Your task to perform on an android device: turn smart compose on in the gmail app Image 0: 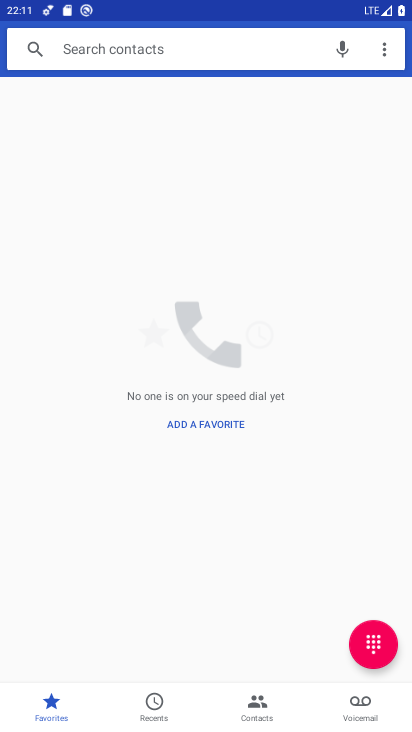
Step 0: press home button
Your task to perform on an android device: turn smart compose on in the gmail app Image 1: 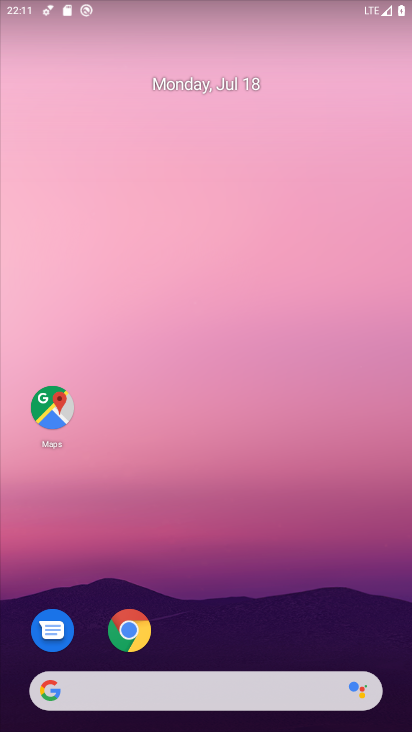
Step 1: drag from (199, 659) to (300, 255)
Your task to perform on an android device: turn smart compose on in the gmail app Image 2: 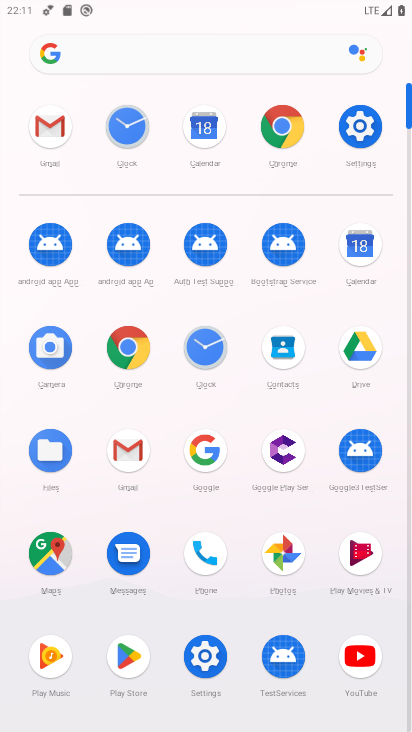
Step 2: click (46, 125)
Your task to perform on an android device: turn smart compose on in the gmail app Image 3: 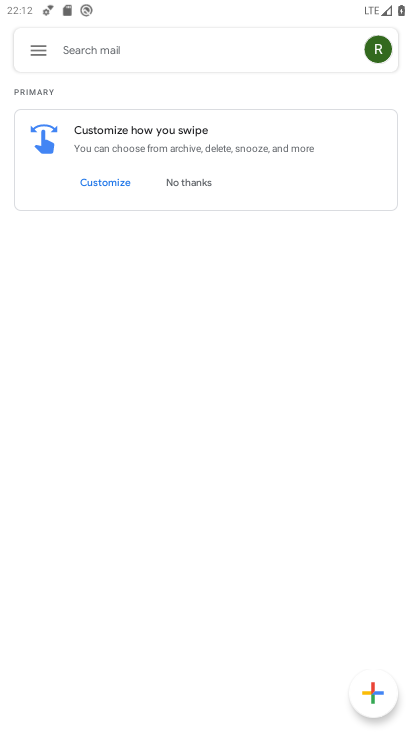
Step 3: click (39, 46)
Your task to perform on an android device: turn smart compose on in the gmail app Image 4: 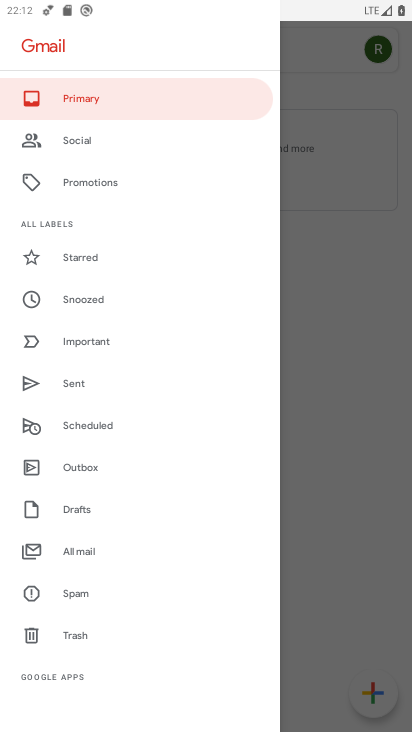
Step 4: drag from (92, 648) to (176, 289)
Your task to perform on an android device: turn smart compose on in the gmail app Image 5: 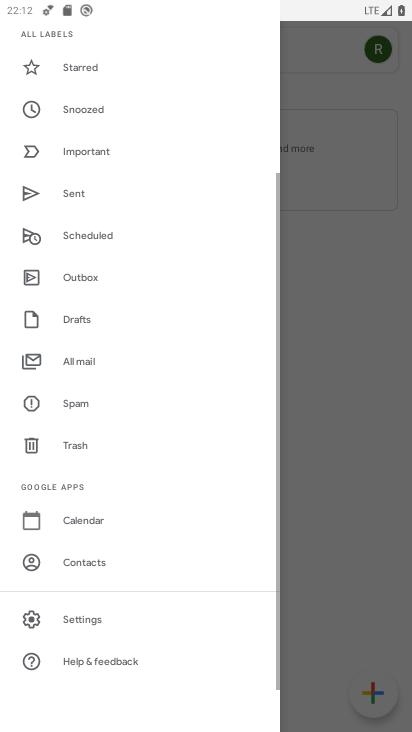
Step 5: click (113, 609)
Your task to perform on an android device: turn smart compose on in the gmail app Image 6: 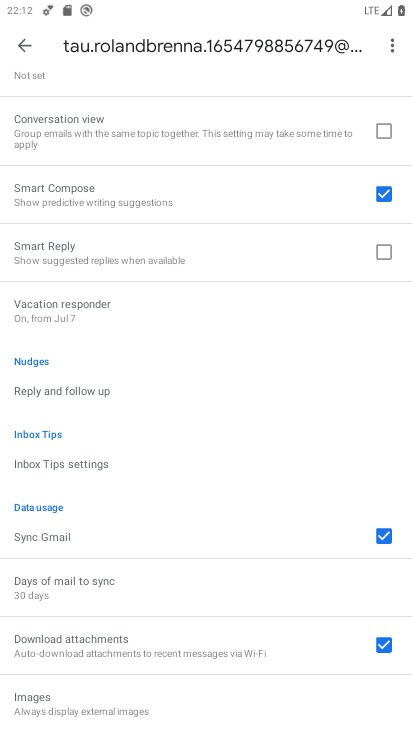
Step 6: task complete